Your task to perform on an android device: turn notification dots off Image 0: 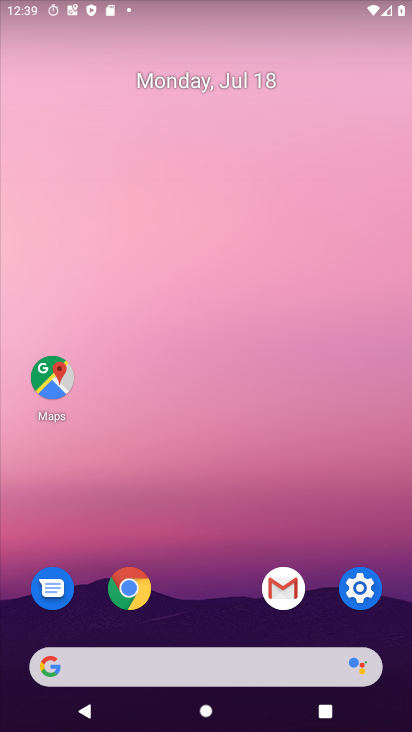
Step 0: click (352, 599)
Your task to perform on an android device: turn notification dots off Image 1: 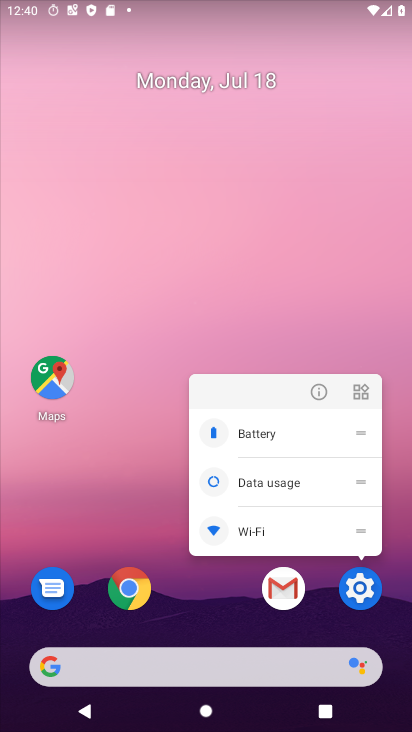
Step 1: click (363, 594)
Your task to perform on an android device: turn notification dots off Image 2: 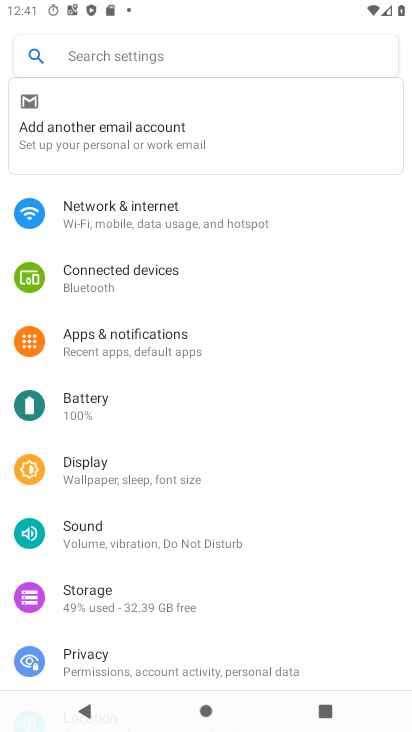
Step 2: click (187, 68)
Your task to perform on an android device: turn notification dots off Image 3: 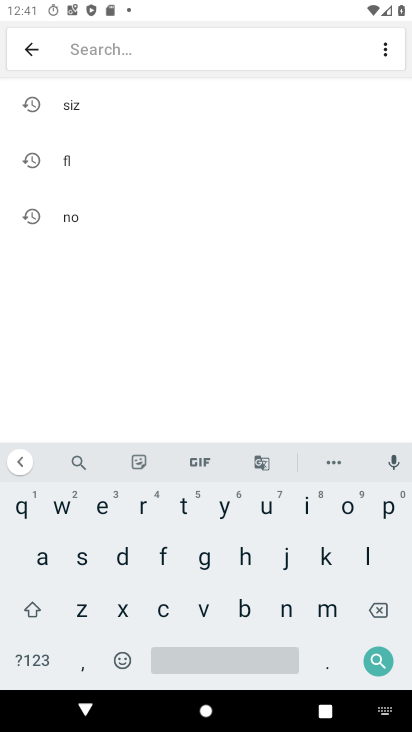
Step 3: click (68, 215)
Your task to perform on an android device: turn notification dots off Image 4: 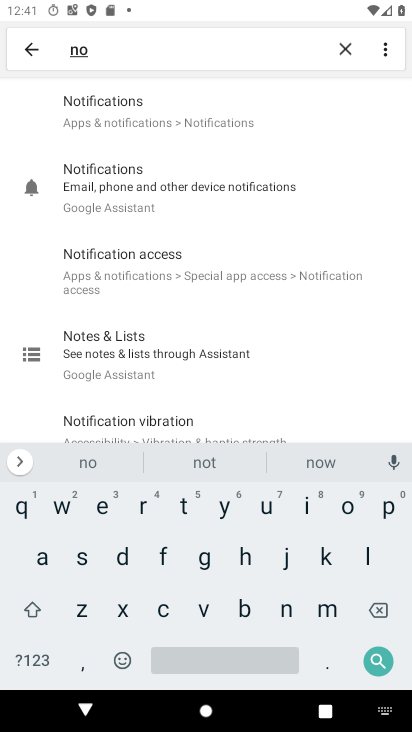
Step 4: click (147, 118)
Your task to perform on an android device: turn notification dots off Image 5: 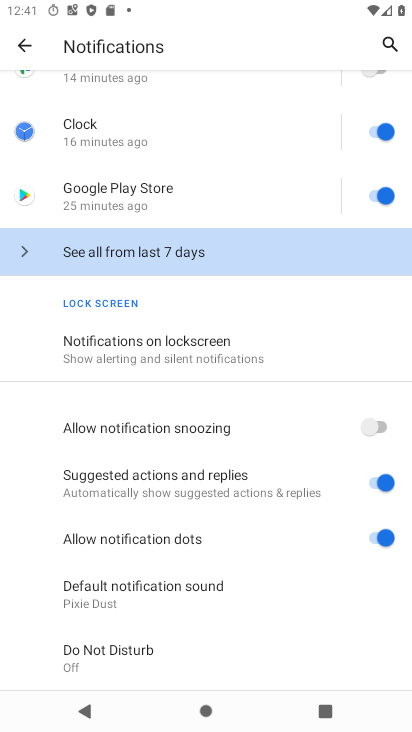
Step 5: click (378, 530)
Your task to perform on an android device: turn notification dots off Image 6: 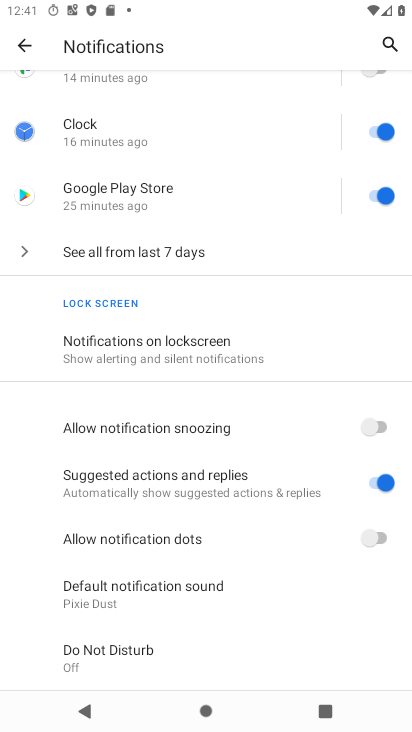
Step 6: task complete